Your task to perform on an android device: see creations saved in the google photos Image 0: 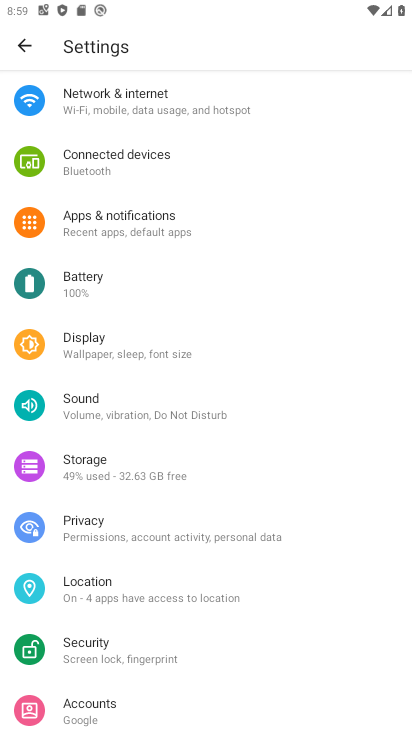
Step 0: press home button
Your task to perform on an android device: see creations saved in the google photos Image 1: 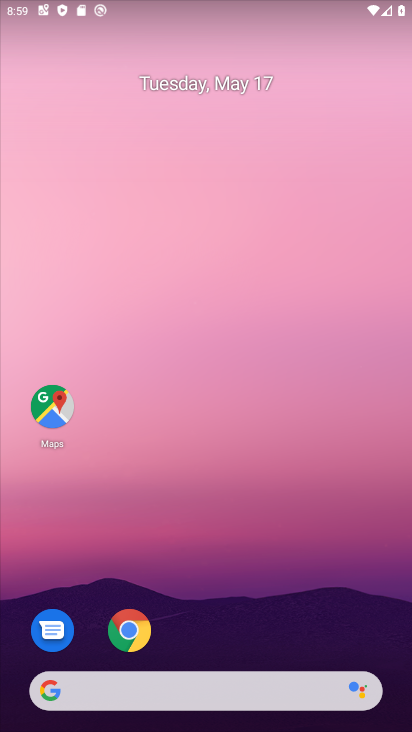
Step 1: drag from (219, 528) to (130, 145)
Your task to perform on an android device: see creations saved in the google photos Image 2: 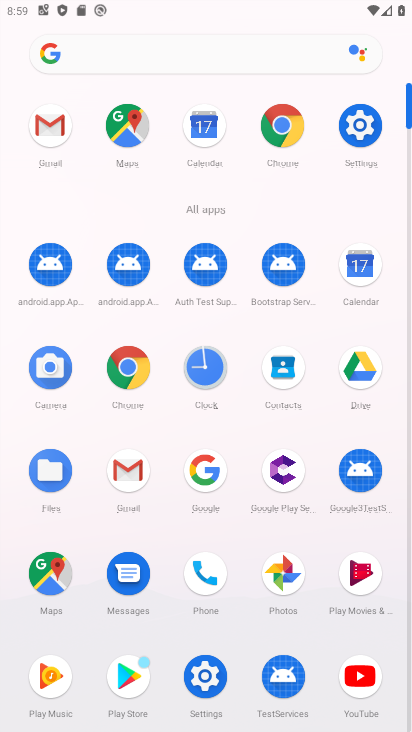
Step 2: click (302, 565)
Your task to perform on an android device: see creations saved in the google photos Image 3: 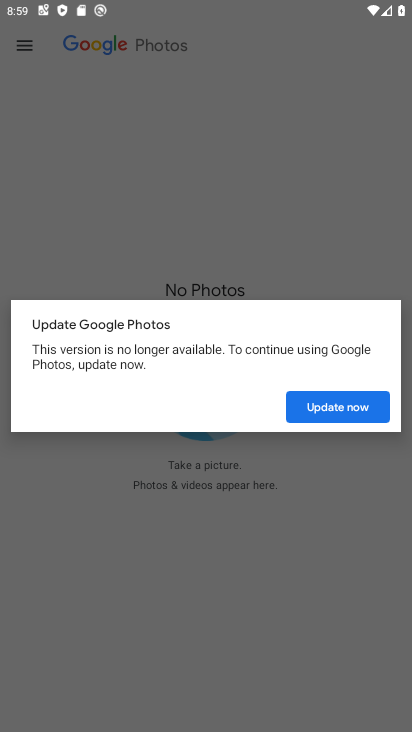
Step 3: click (316, 417)
Your task to perform on an android device: see creations saved in the google photos Image 4: 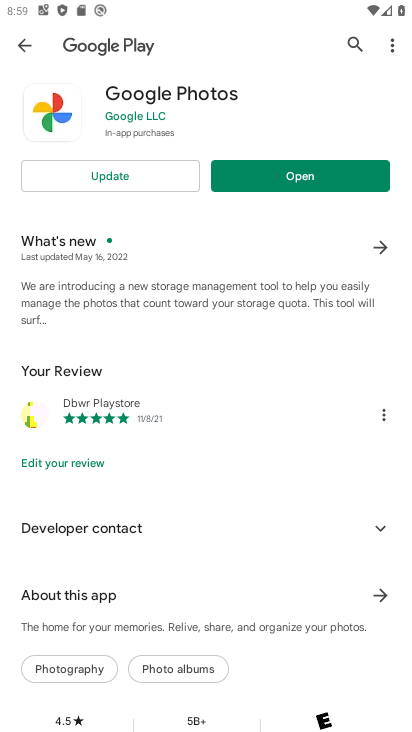
Step 4: click (159, 170)
Your task to perform on an android device: see creations saved in the google photos Image 5: 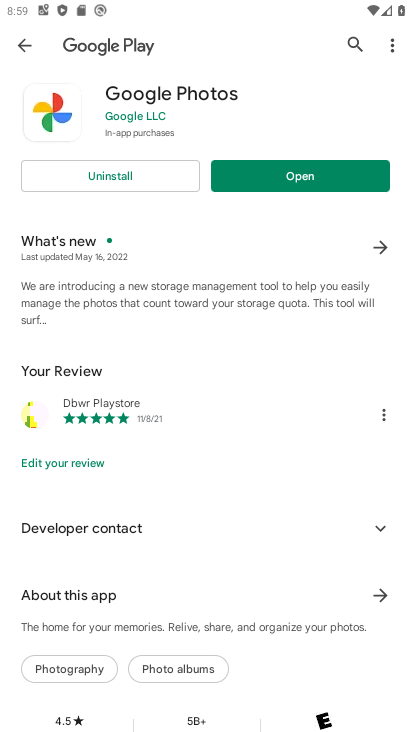
Step 5: click (300, 183)
Your task to perform on an android device: see creations saved in the google photos Image 6: 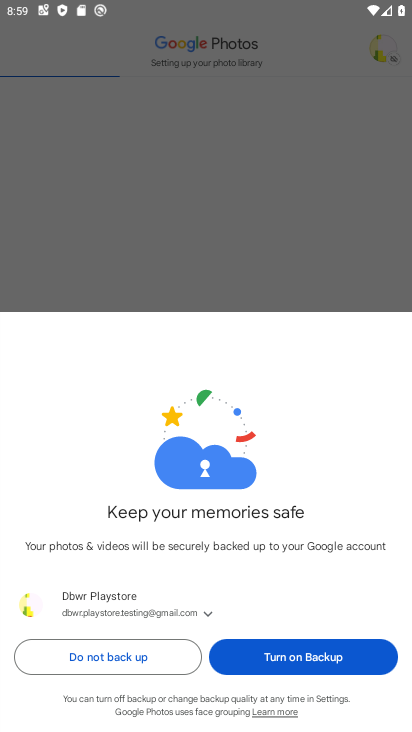
Step 6: click (162, 657)
Your task to perform on an android device: see creations saved in the google photos Image 7: 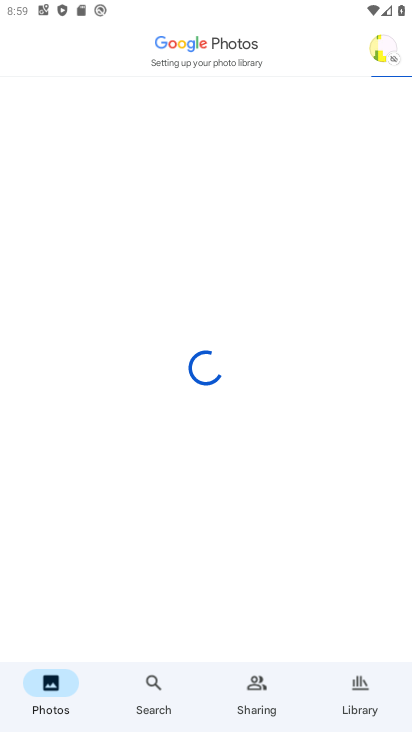
Step 7: click (148, 688)
Your task to perform on an android device: see creations saved in the google photos Image 8: 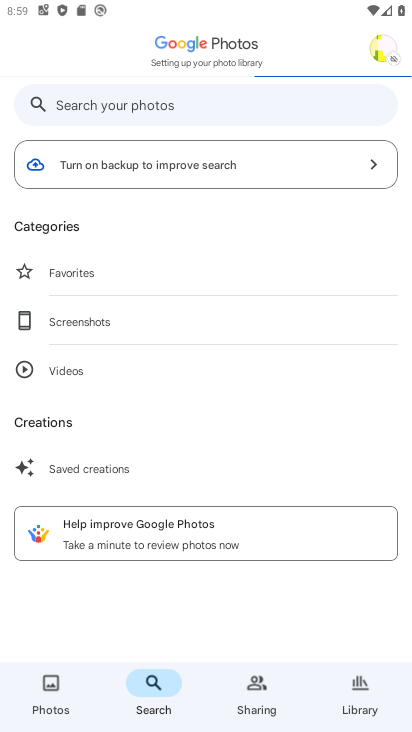
Step 8: click (80, 471)
Your task to perform on an android device: see creations saved in the google photos Image 9: 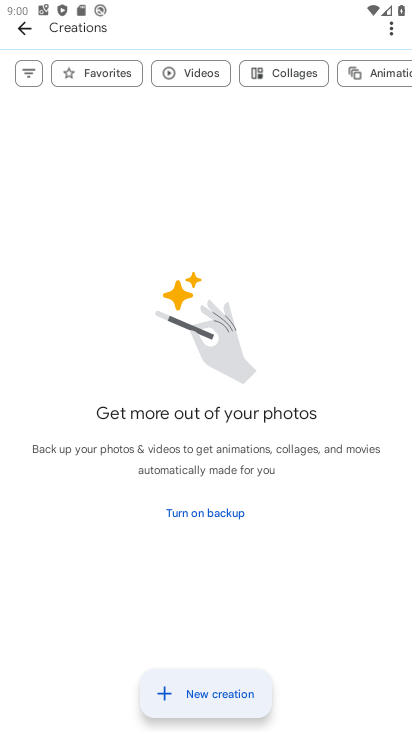
Step 9: task complete